Your task to perform on an android device: toggle improve location accuracy Image 0: 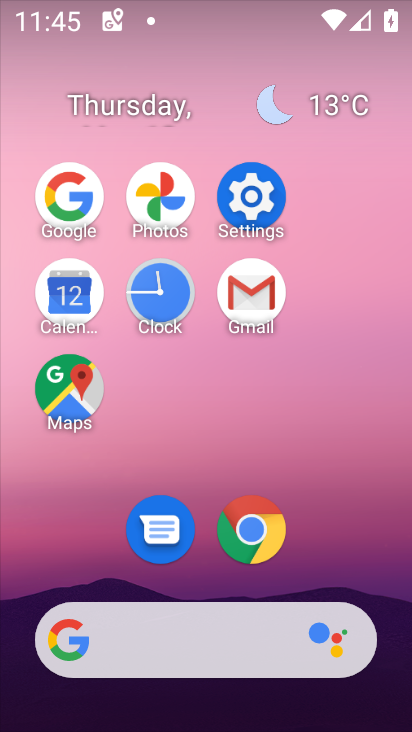
Step 0: click (250, 185)
Your task to perform on an android device: toggle improve location accuracy Image 1: 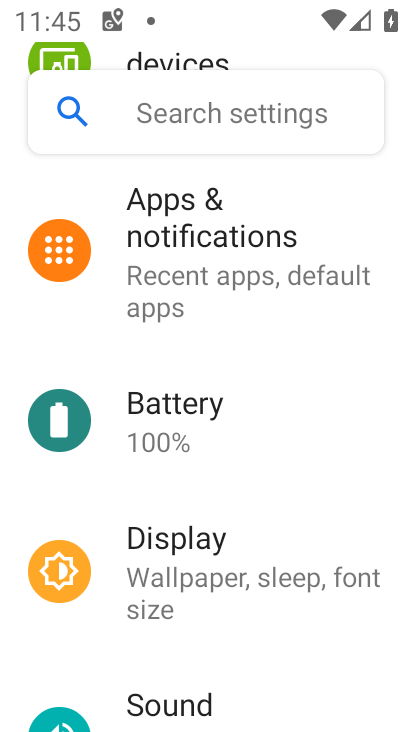
Step 1: drag from (243, 513) to (227, 213)
Your task to perform on an android device: toggle improve location accuracy Image 2: 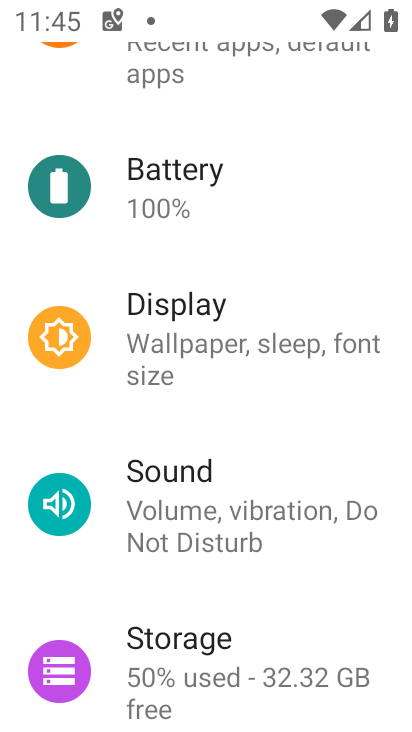
Step 2: drag from (287, 594) to (328, 244)
Your task to perform on an android device: toggle improve location accuracy Image 3: 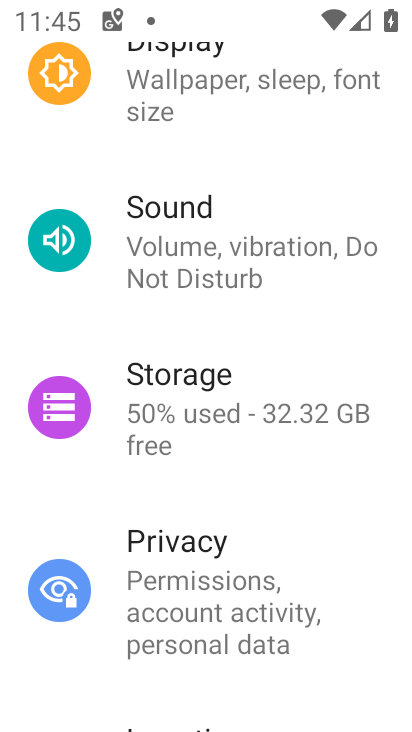
Step 3: drag from (265, 568) to (306, 225)
Your task to perform on an android device: toggle improve location accuracy Image 4: 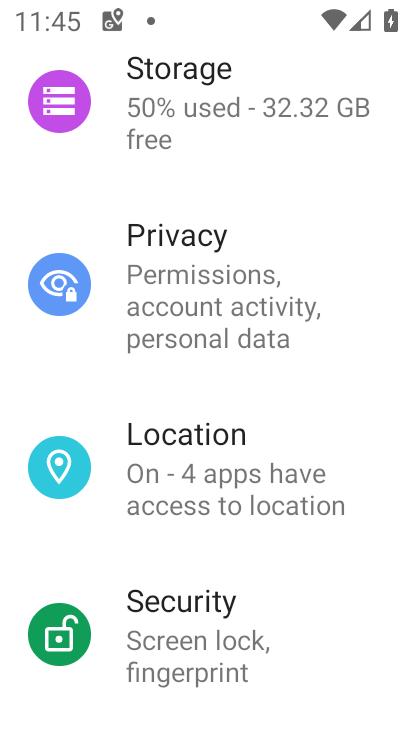
Step 4: click (261, 500)
Your task to perform on an android device: toggle improve location accuracy Image 5: 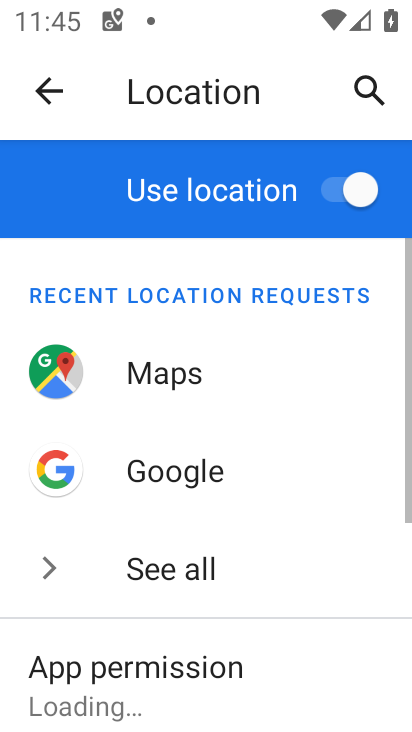
Step 5: drag from (261, 500) to (299, 149)
Your task to perform on an android device: toggle improve location accuracy Image 6: 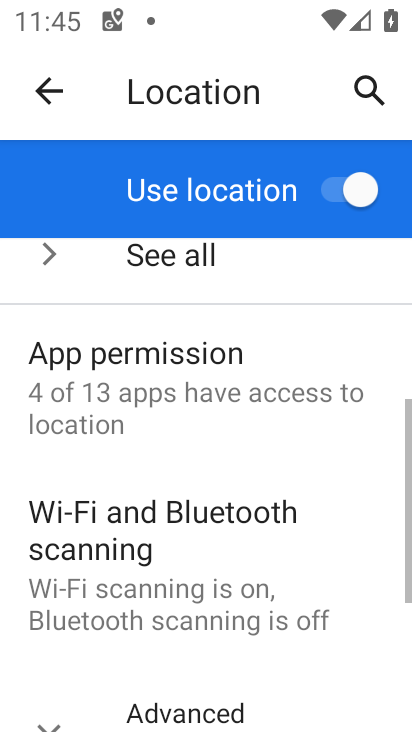
Step 6: drag from (269, 619) to (278, 241)
Your task to perform on an android device: toggle improve location accuracy Image 7: 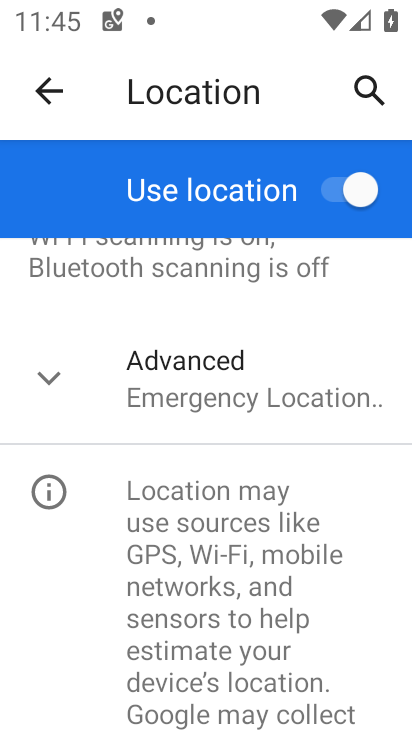
Step 7: click (233, 356)
Your task to perform on an android device: toggle improve location accuracy Image 8: 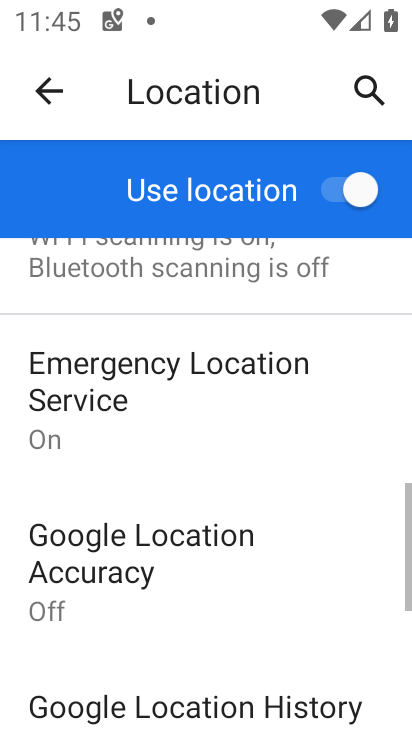
Step 8: drag from (216, 648) to (239, 290)
Your task to perform on an android device: toggle improve location accuracy Image 9: 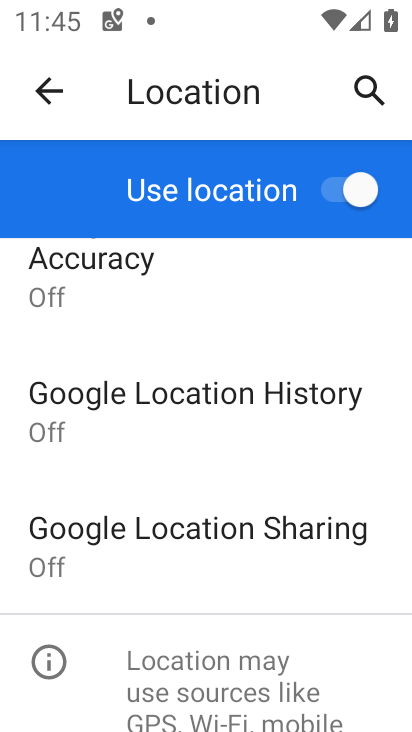
Step 9: drag from (241, 500) to (260, 261)
Your task to perform on an android device: toggle improve location accuracy Image 10: 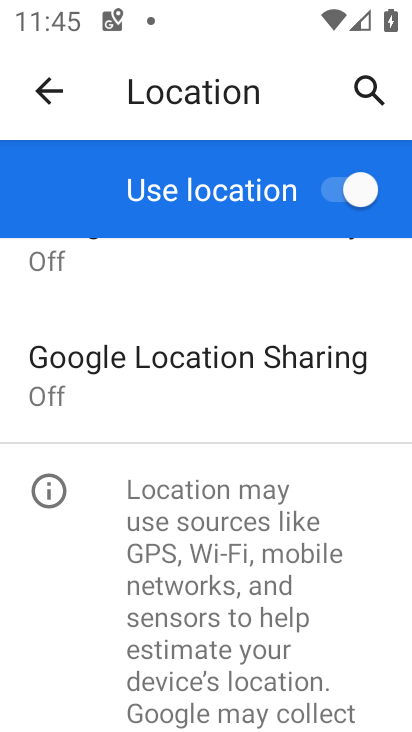
Step 10: drag from (296, 372) to (285, 707)
Your task to perform on an android device: toggle improve location accuracy Image 11: 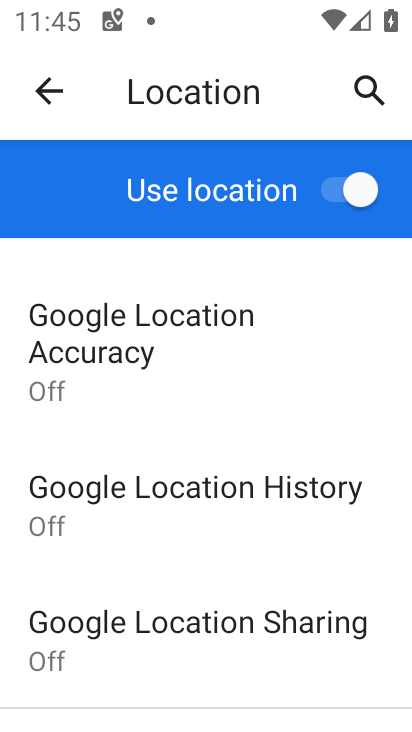
Step 11: click (176, 323)
Your task to perform on an android device: toggle improve location accuracy Image 12: 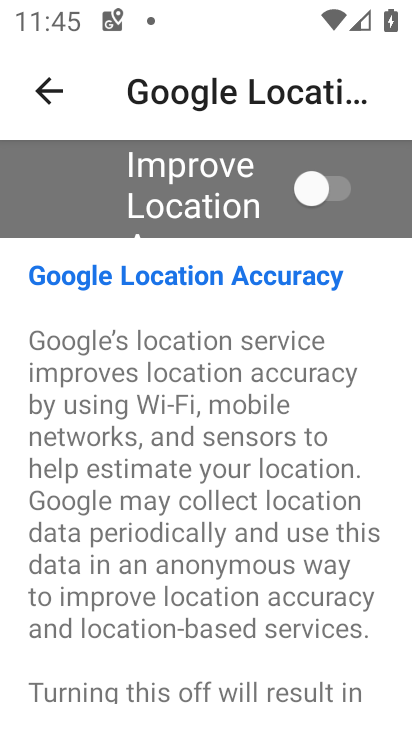
Step 12: click (333, 191)
Your task to perform on an android device: toggle improve location accuracy Image 13: 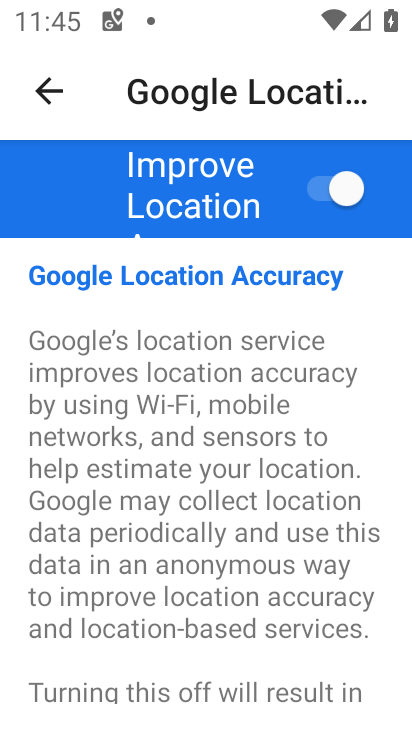
Step 13: task complete